Your task to perform on an android device: see sites visited before in the chrome app Image 0: 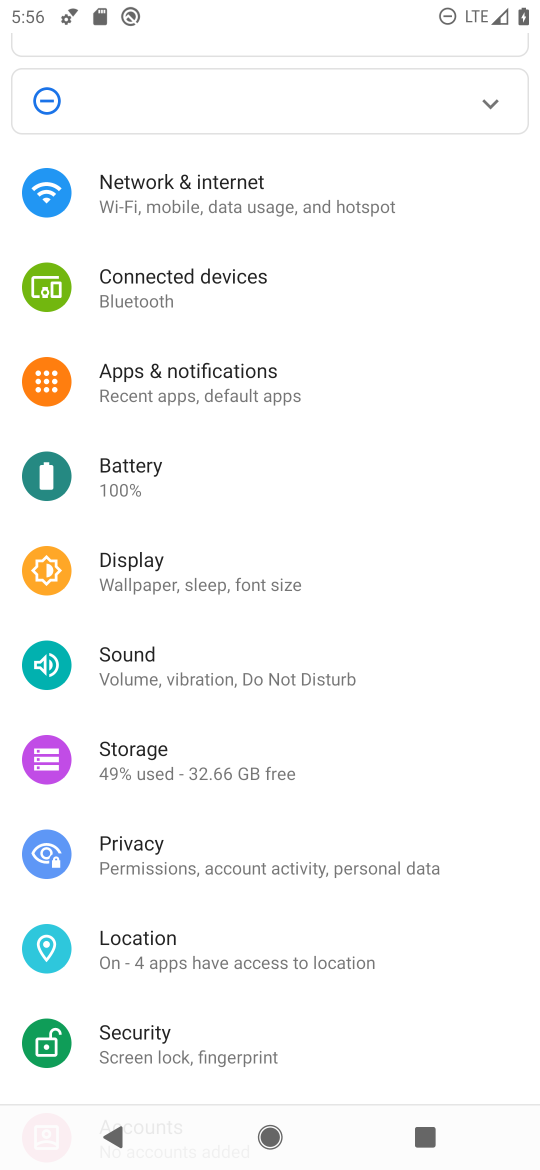
Step 0: press home button
Your task to perform on an android device: see sites visited before in the chrome app Image 1: 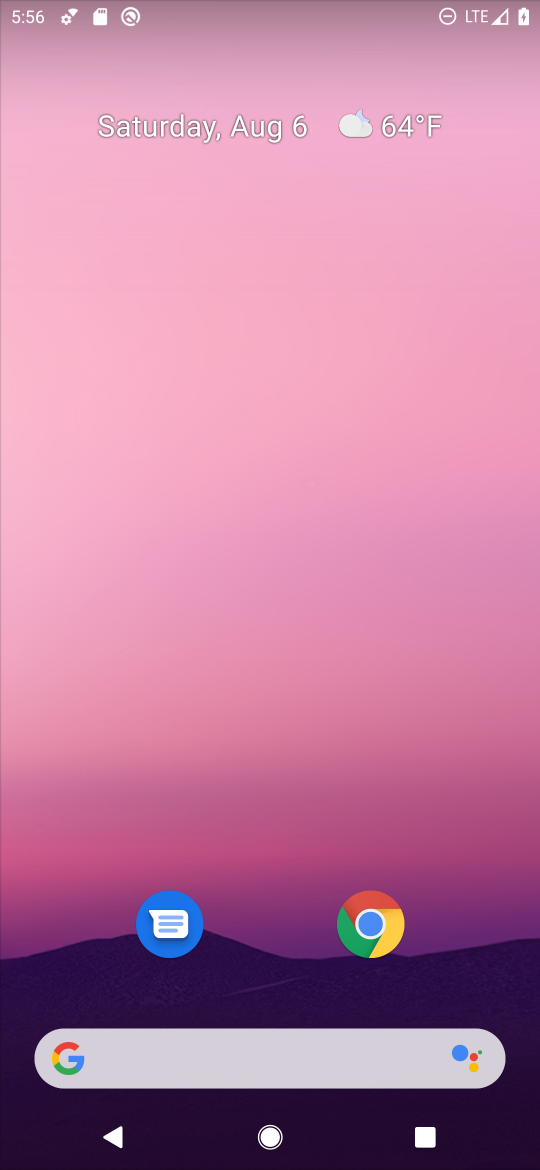
Step 1: click (370, 924)
Your task to perform on an android device: see sites visited before in the chrome app Image 2: 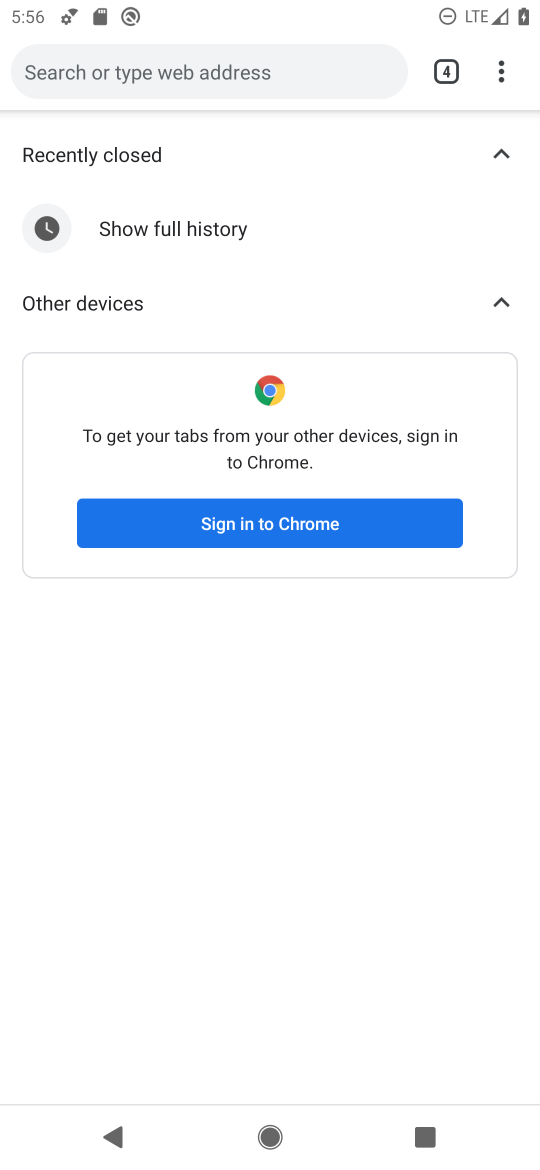
Step 2: click (503, 72)
Your task to perform on an android device: see sites visited before in the chrome app Image 3: 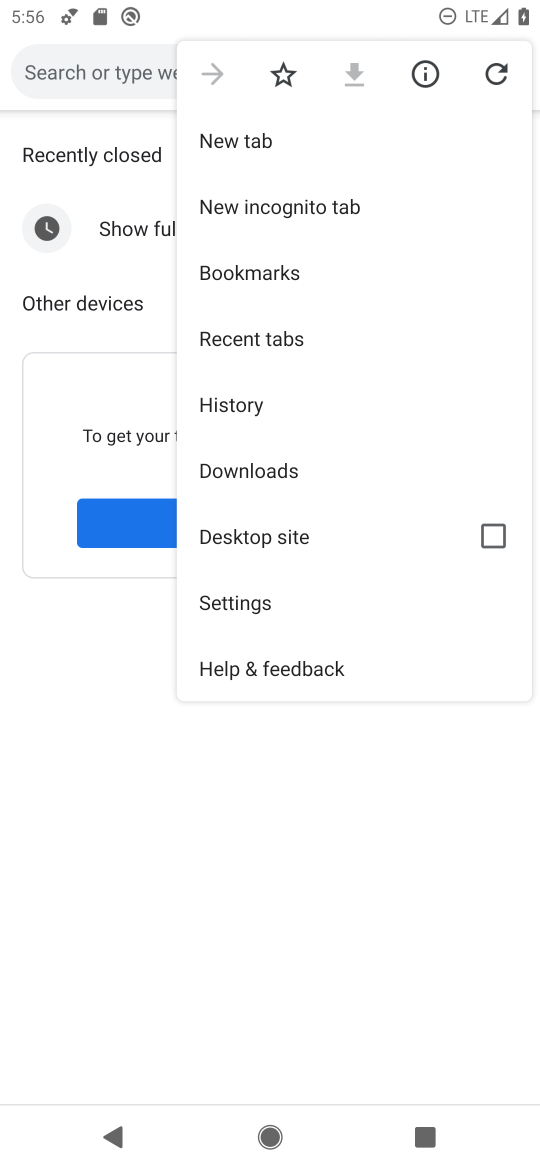
Step 3: click (252, 391)
Your task to perform on an android device: see sites visited before in the chrome app Image 4: 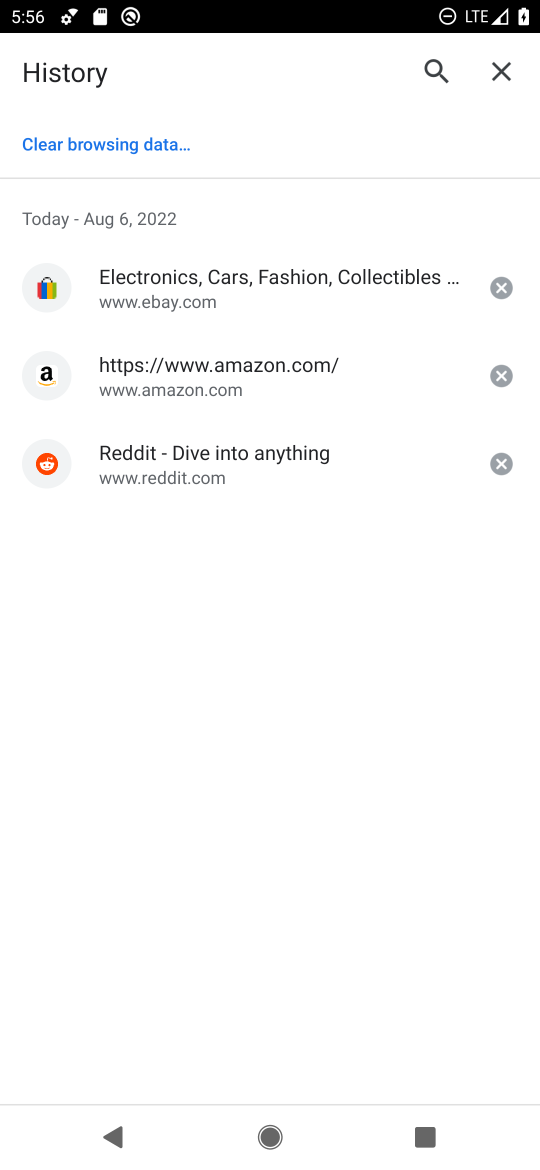
Step 4: task complete